Your task to perform on an android device: Go to Maps Image 0: 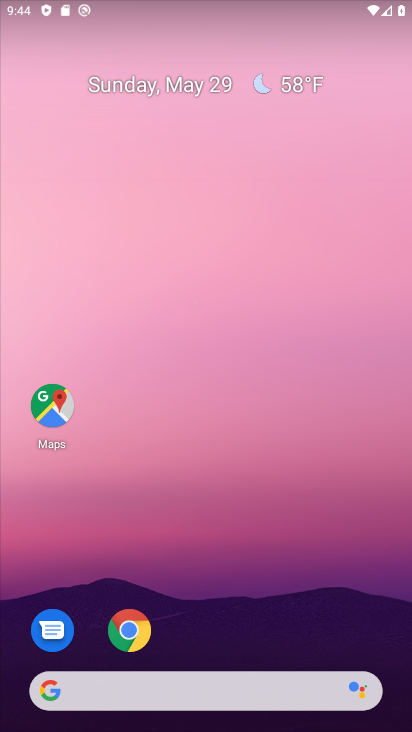
Step 0: click (68, 410)
Your task to perform on an android device: Go to Maps Image 1: 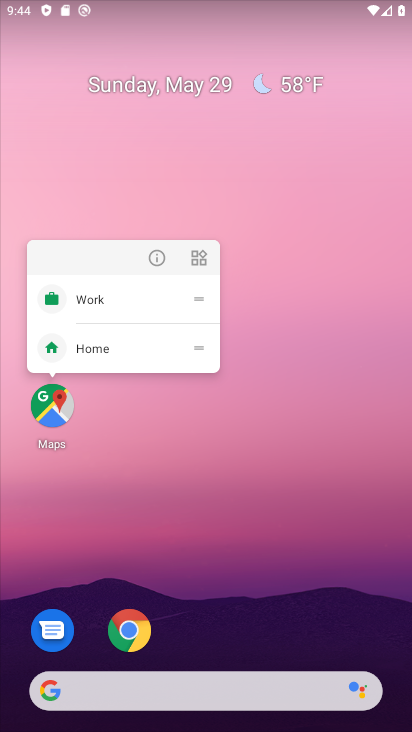
Step 1: click (73, 410)
Your task to perform on an android device: Go to Maps Image 2: 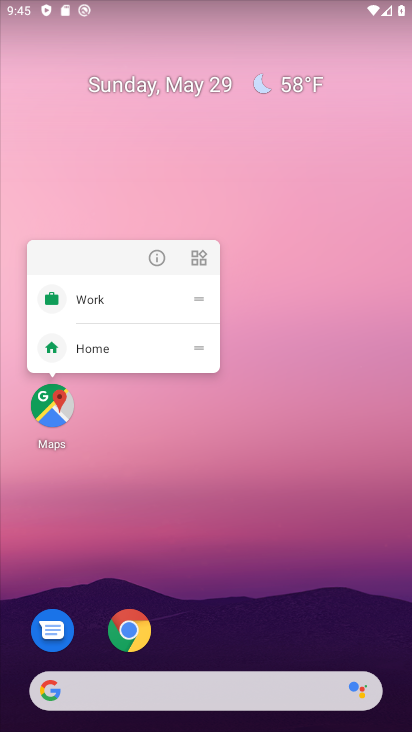
Step 2: click (52, 417)
Your task to perform on an android device: Go to Maps Image 3: 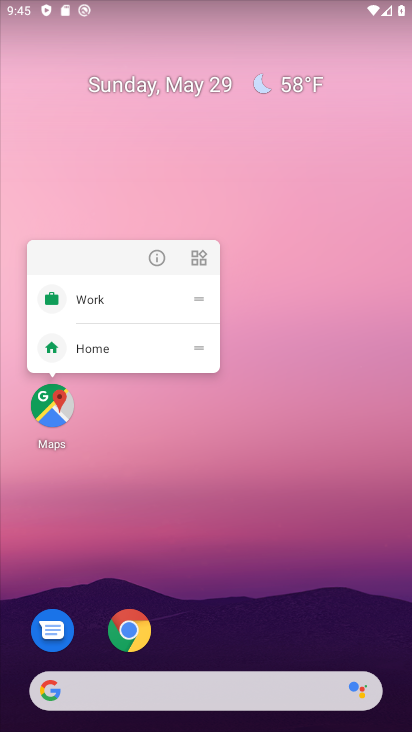
Step 3: click (58, 408)
Your task to perform on an android device: Go to Maps Image 4: 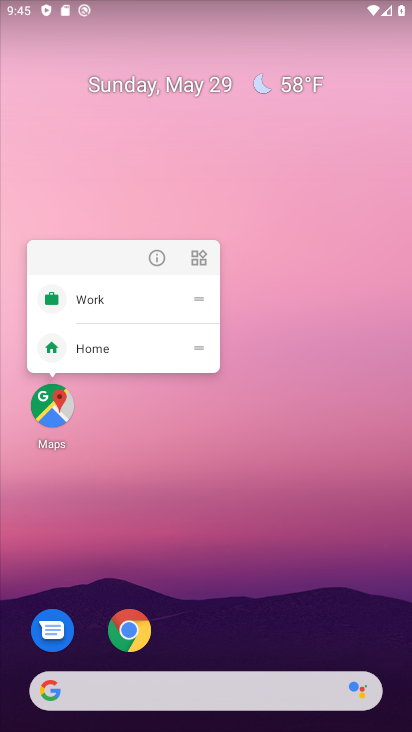
Step 4: click (43, 407)
Your task to perform on an android device: Go to Maps Image 5: 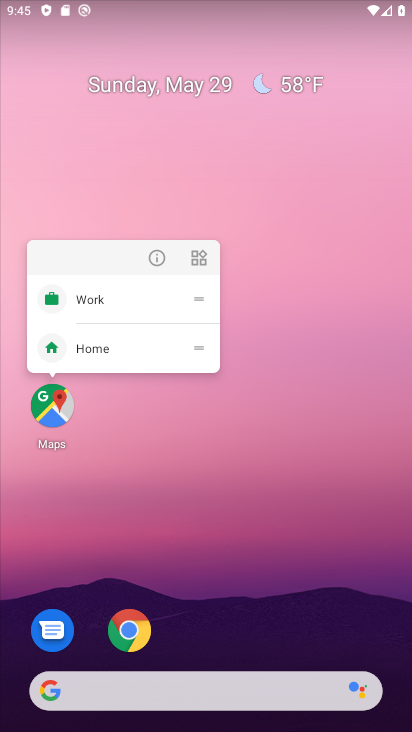
Step 5: click (57, 399)
Your task to perform on an android device: Go to Maps Image 6: 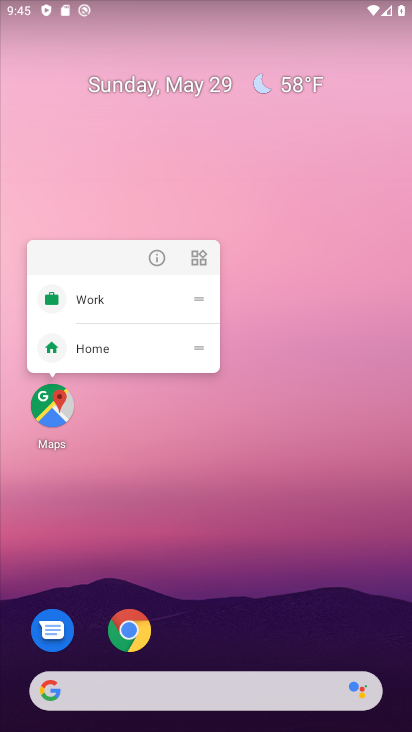
Step 6: click (63, 421)
Your task to perform on an android device: Go to Maps Image 7: 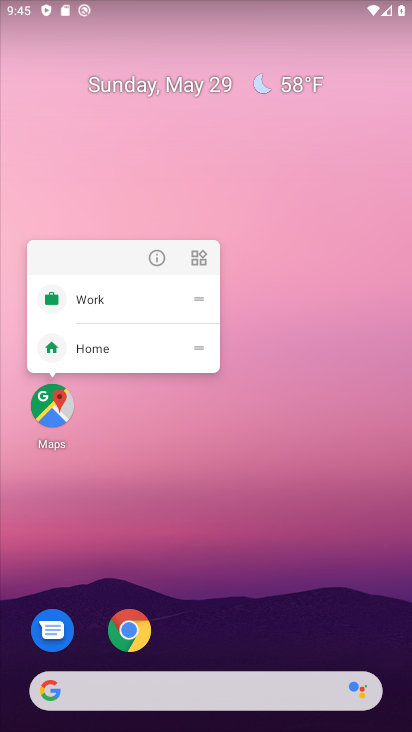
Step 7: click (51, 417)
Your task to perform on an android device: Go to Maps Image 8: 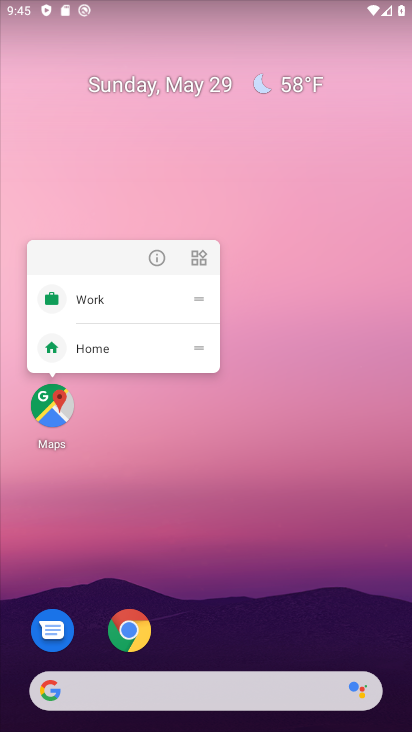
Step 8: click (56, 414)
Your task to perform on an android device: Go to Maps Image 9: 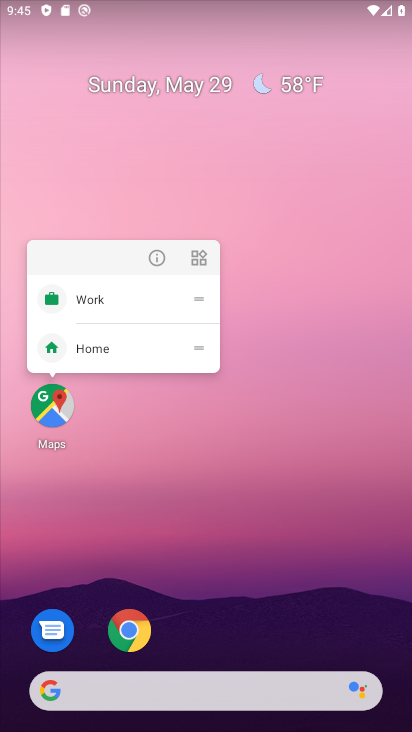
Step 9: click (58, 412)
Your task to perform on an android device: Go to Maps Image 10: 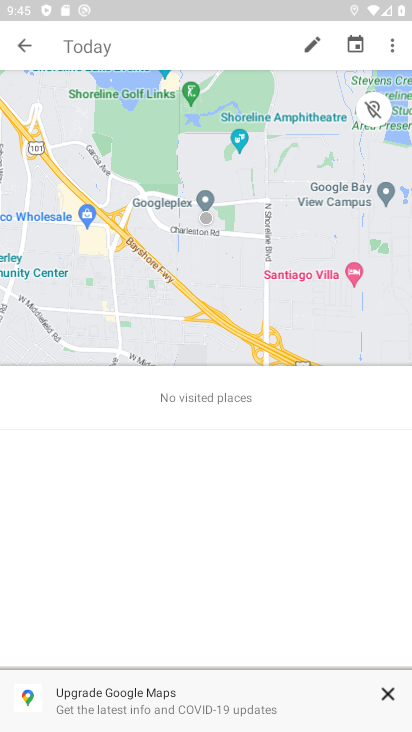
Step 10: click (61, 410)
Your task to perform on an android device: Go to Maps Image 11: 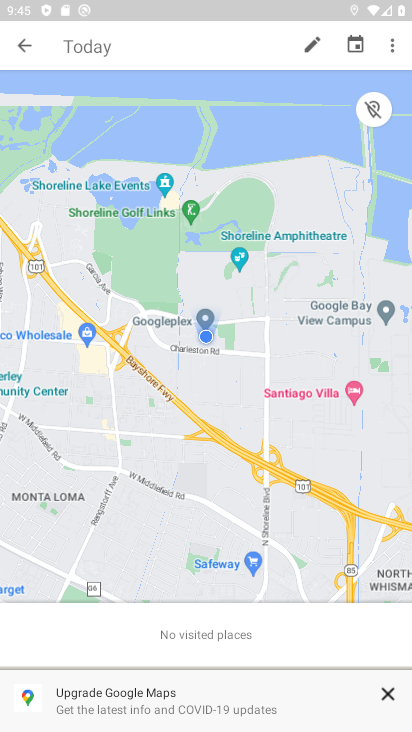
Step 11: task complete